Your task to perform on an android device: toggle javascript in the chrome app Image 0: 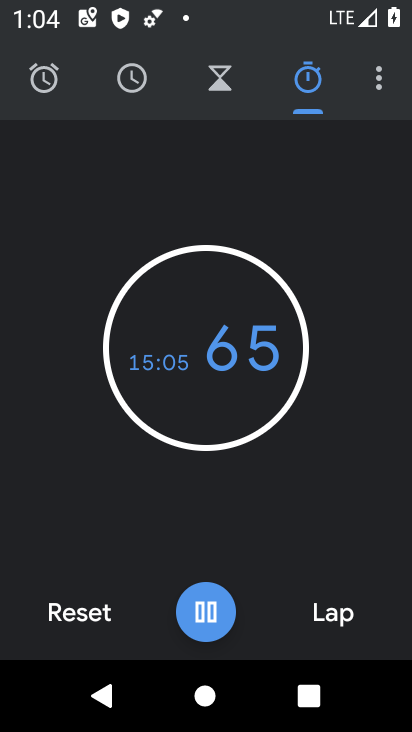
Step 0: press home button
Your task to perform on an android device: toggle javascript in the chrome app Image 1: 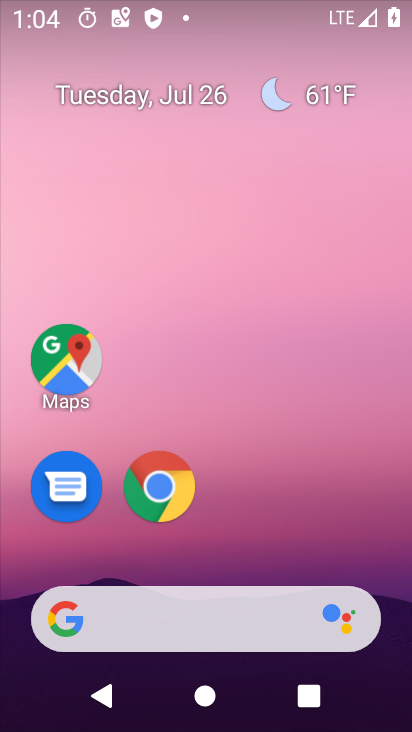
Step 1: drag from (334, 537) to (342, 37)
Your task to perform on an android device: toggle javascript in the chrome app Image 2: 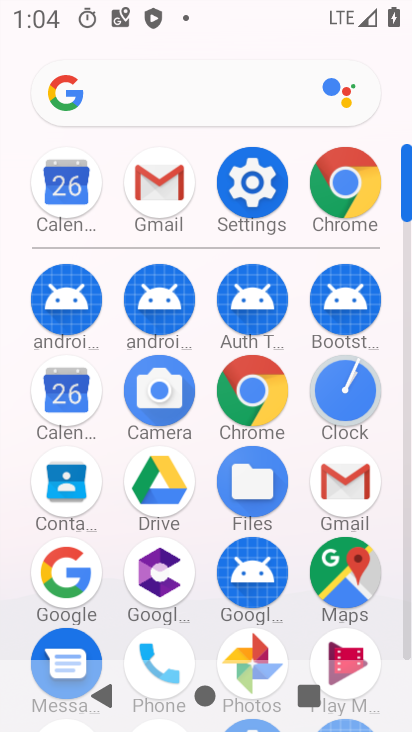
Step 2: click (353, 199)
Your task to perform on an android device: toggle javascript in the chrome app Image 3: 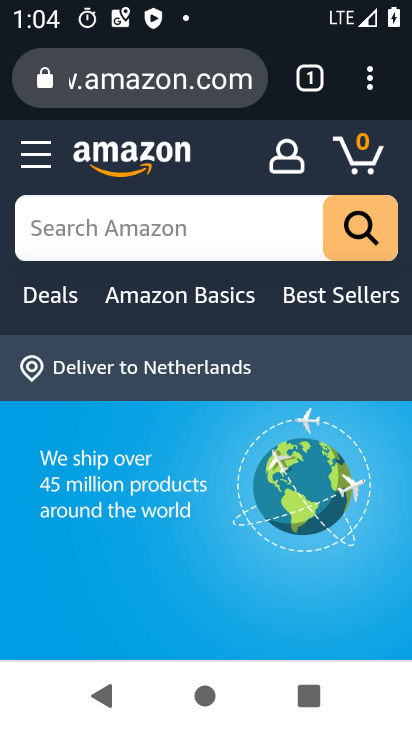
Step 3: click (370, 91)
Your task to perform on an android device: toggle javascript in the chrome app Image 4: 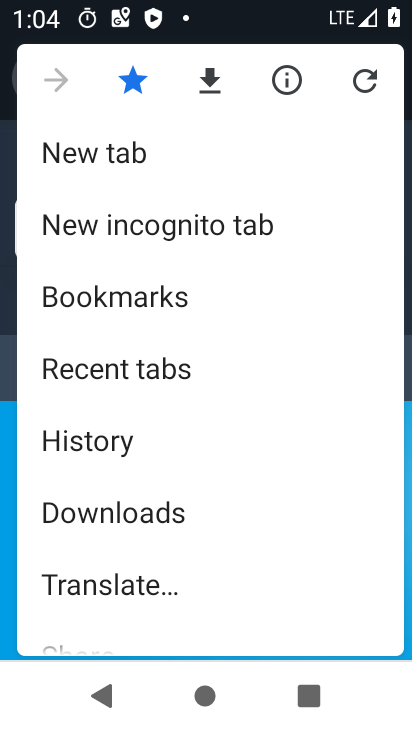
Step 4: drag from (289, 487) to (289, 327)
Your task to perform on an android device: toggle javascript in the chrome app Image 5: 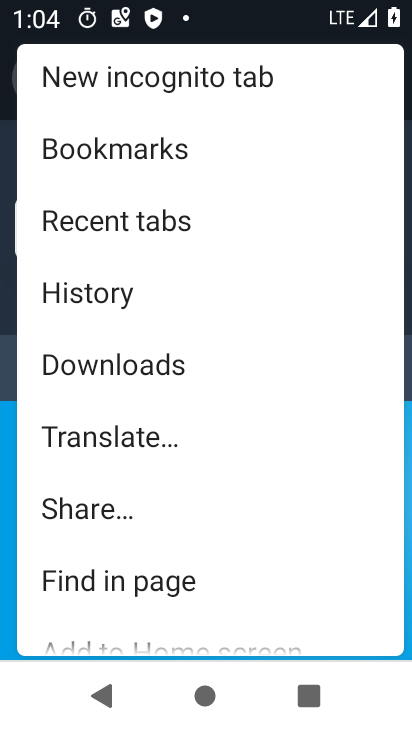
Step 5: drag from (274, 495) to (274, 394)
Your task to perform on an android device: toggle javascript in the chrome app Image 6: 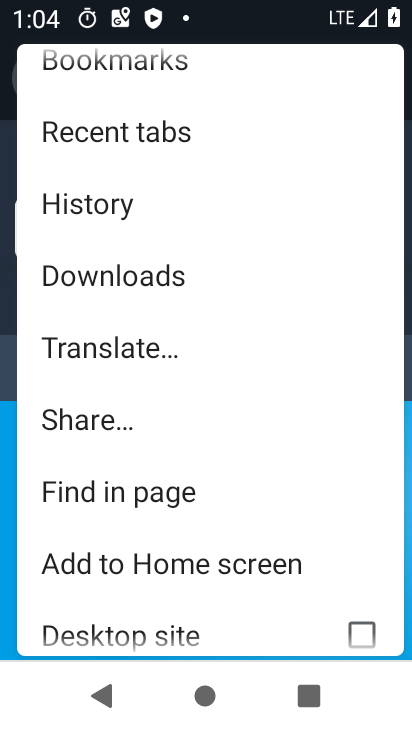
Step 6: drag from (276, 533) to (280, 362)
Your task to perform on an android device: toggle javascript in the chrome app Image 7: 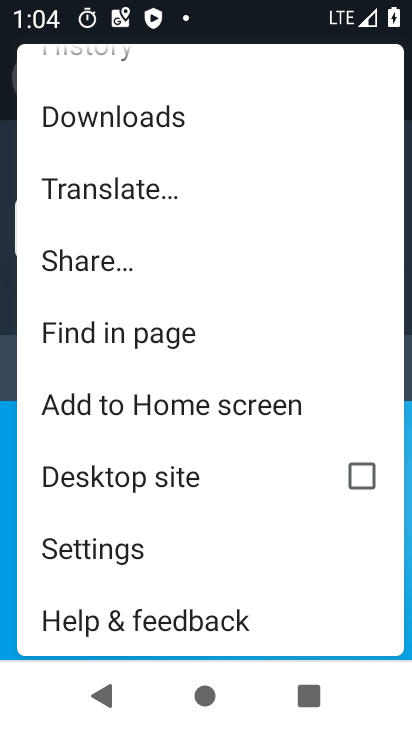
Step 7: drag from (282, 549) to (287, 402)
Your task to perform on an android device: toggle javascript in the chrome app Image 8: 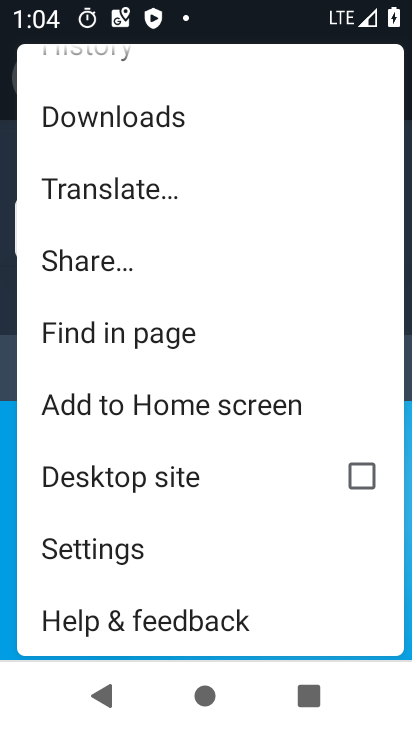
Step 8: click (154, 565)
Your task to perform on an android device: toggle javascript in the chrome app Image 9: 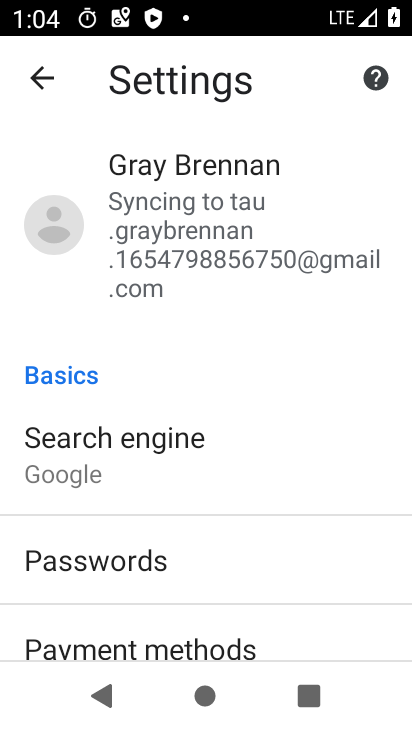
Step 9: drag from (318, 459) to (317, 420)
Your task to perform on an android device: toggle javascript in the chrome app Image 10: 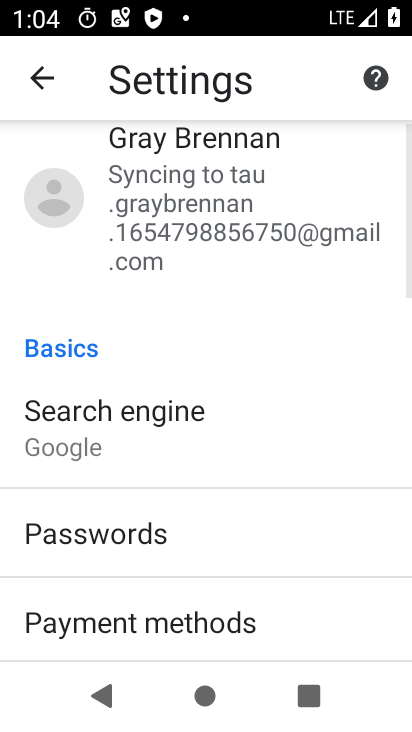
Step 10: drag from (319, 592) to (314, 398)
Your task to perform on an android device: toggle javascript in the chrome app Image 11: 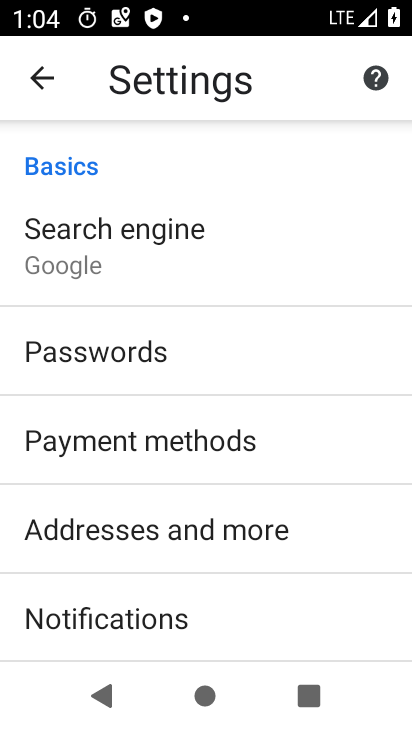
Step 11: drag from (326, 590) to (324, 422)
Your task to perform on an android device: toggle javascript in the chrome app Image 12: 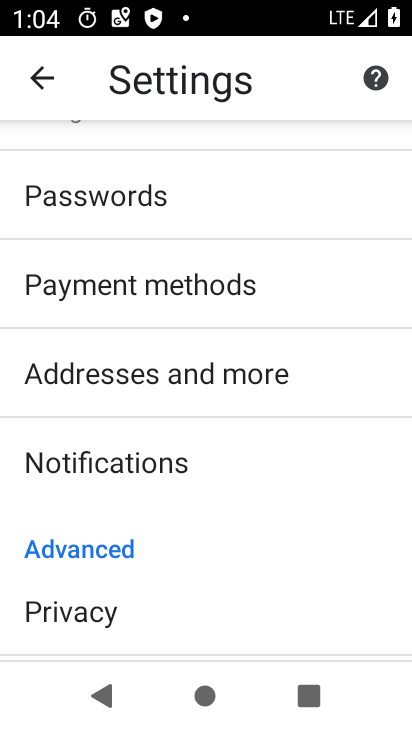
Step 12: drag from (290, 585) to (300, 416)
Your task to perform on an android device: toggle javascript in the chrome app Image 13: 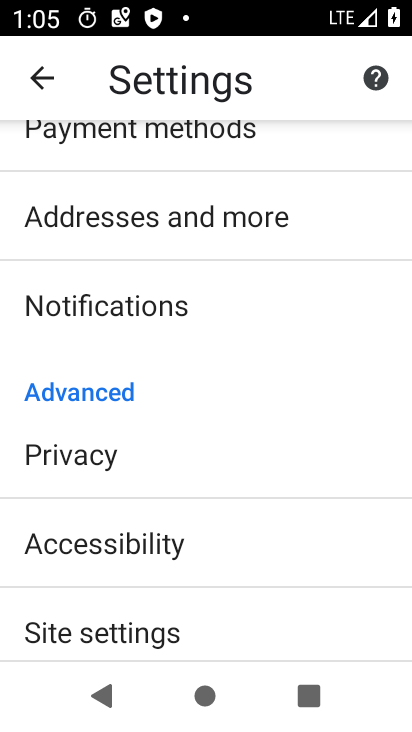
Step 13: drag from (305, 588) to (309, 411)
Your task to perform on an android device: toggle javascript in the chrome app Image 14: 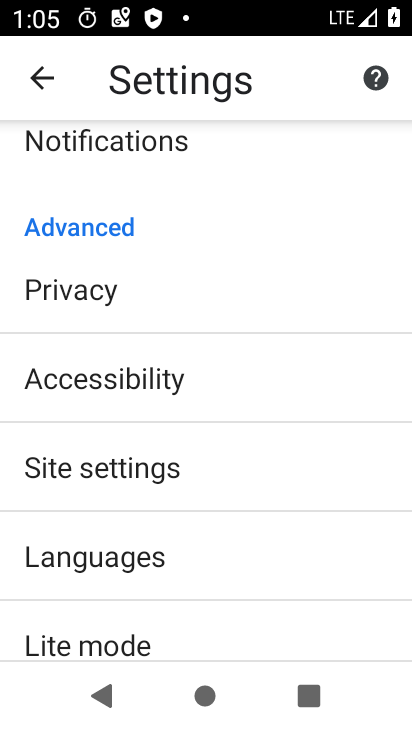
Step 14: drag from (307, 566) to (307, 332)
Your task to perform on an android device: toggle javascript in the chrome app Image 15: 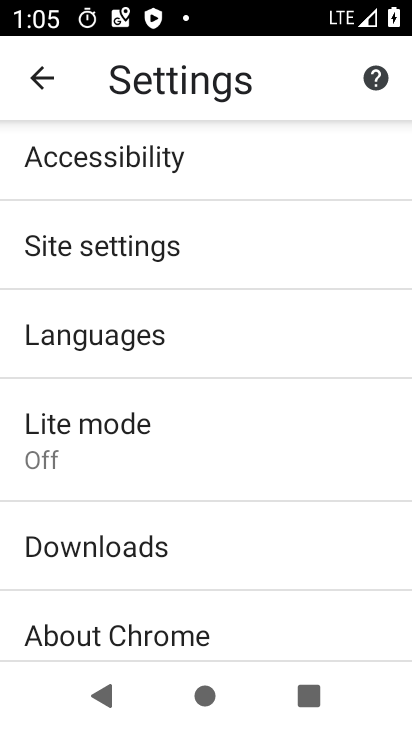
Step 15: drag from (282, 534) to (280, 383)
Your task to perform on an android device: toggle javascript in the chrome app Image 16: 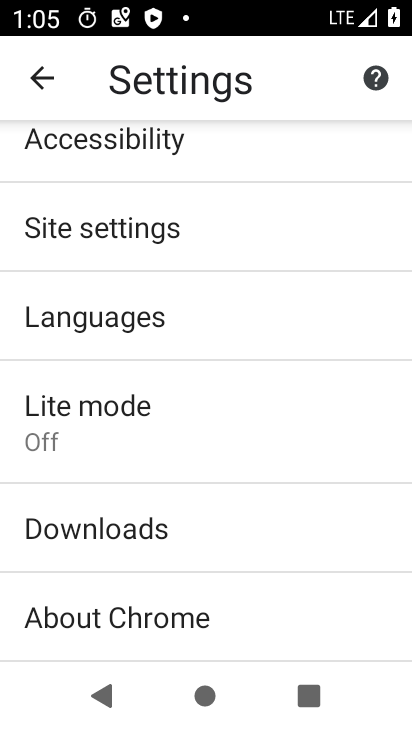
Step 16: drag from (282, 259) to (287, 412)
Your task to perform on an android device: toggle javascript in the chrome app Image 17: 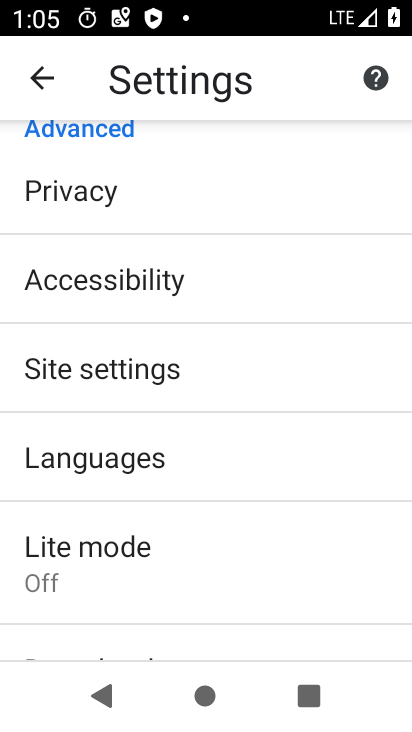
Step 17: drag from (281, 256) to (296, 390)
Your task to perform on an android device: toggle javascript in the chrome app Image 18: 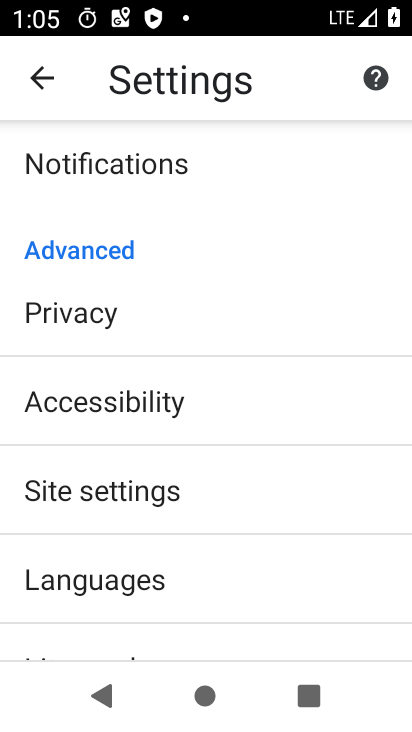
Step 18: click (241, 500)
Your task to perform on an android device: toggle javascript in the chrome app Image 19: 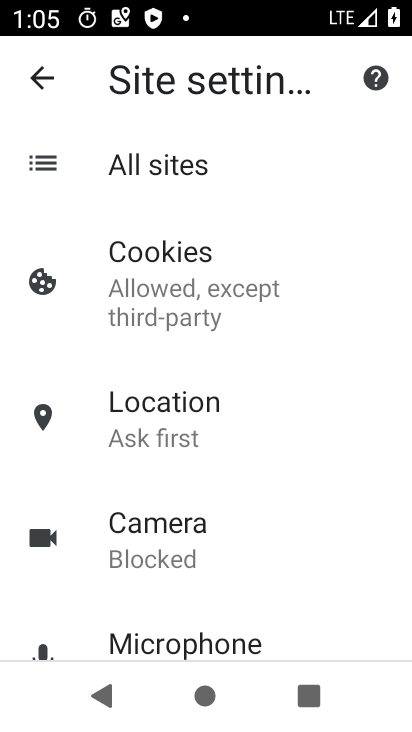
Step 19: drag from (317, 507) to (325, 368)
Your task to perform on an android device: toggle javascript in the chrome app Image 20: 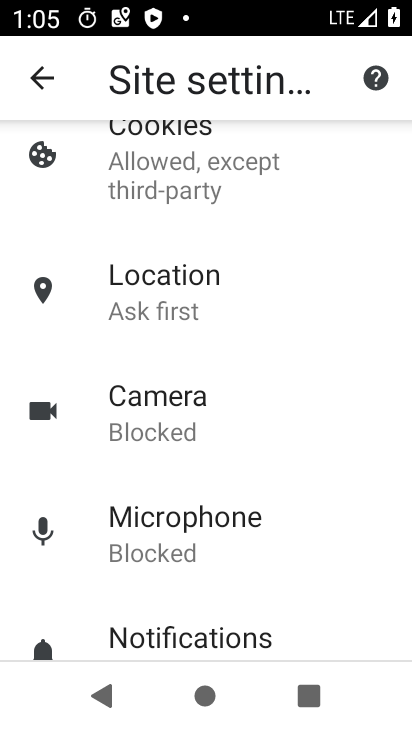
Step 20: drag from (324, 545) to (326, 396)
Your task to perform on an android device: toggle javascript in the chrome app Image 21: 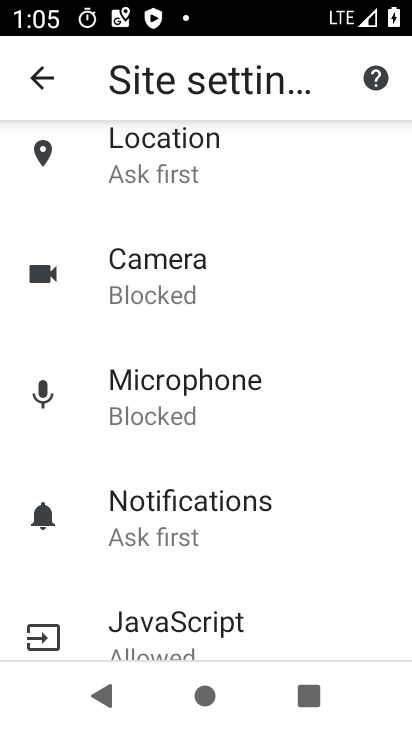
Step 21: drag from (340, 586) to (340, 420)
Your task to perform on an android device: toggle javascript in the chrome app Image 22: 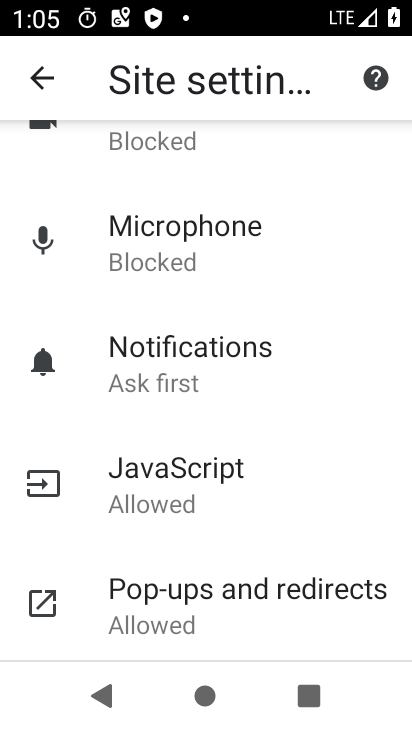
Step 22: drag from (316, 555) to (316, 409)
Your task to perform on an android device: toggle javascript in the chrome app Image 23: 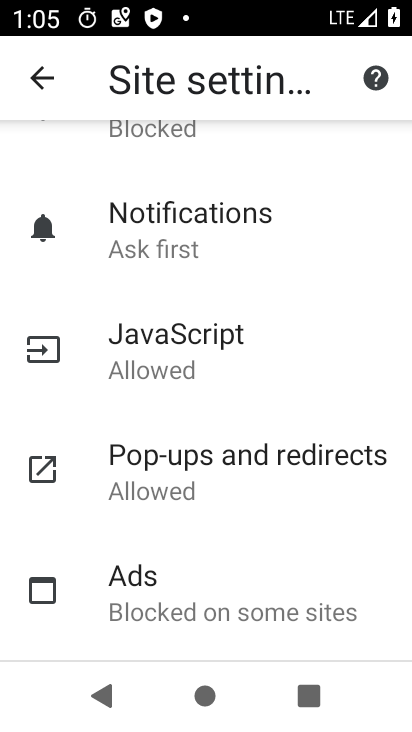
Step 23: drag from (318, 555) to (336, 279)
Your task to perform on an android device: toggle javascript in the chrome app Image 24: 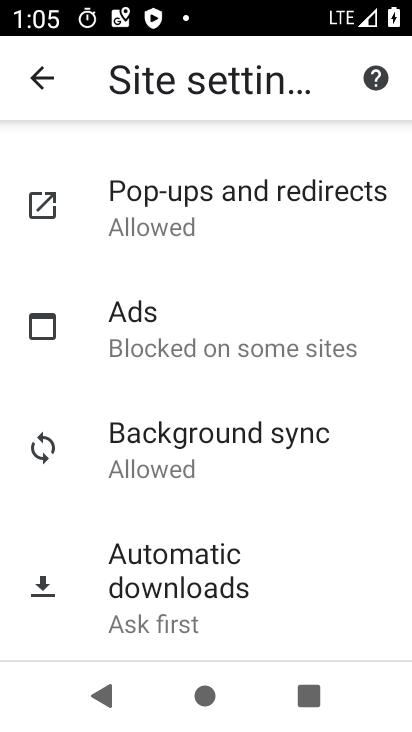
Step 24: drag from (317, 546) to (325, 372)
Your task to perform on an android device: toggle javascript in the chrome app Image 25: 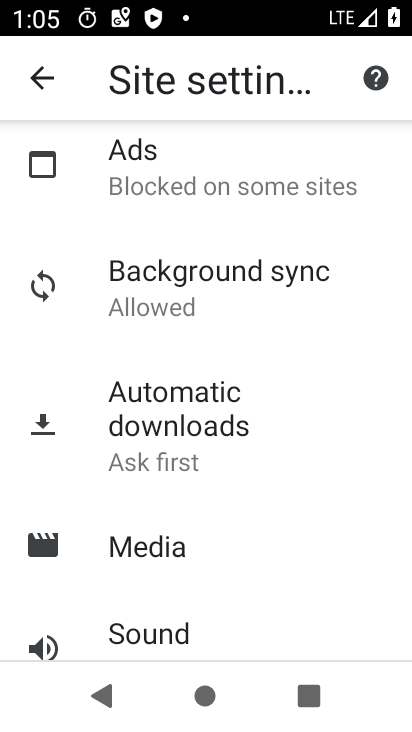
Step 25: drag from (329, 532) to (329, 368)
Your task to perform on an android device: toggle javascript in the chrome app Image 26: 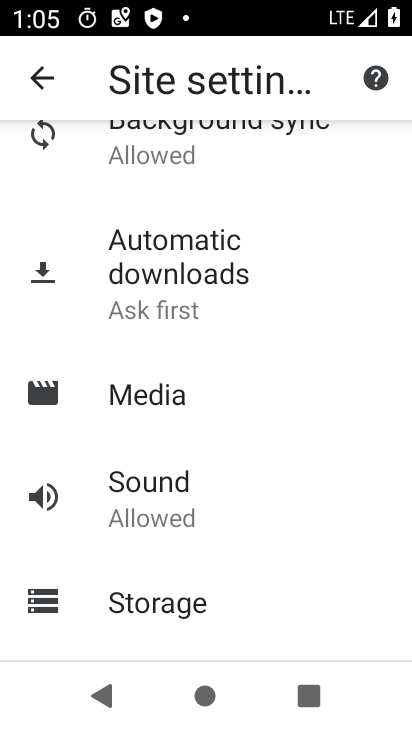
Step 26: drag from (312, 561) to (312, 364)
Your task to perform on an android device: toggle javascript in the chrome app Image 27: 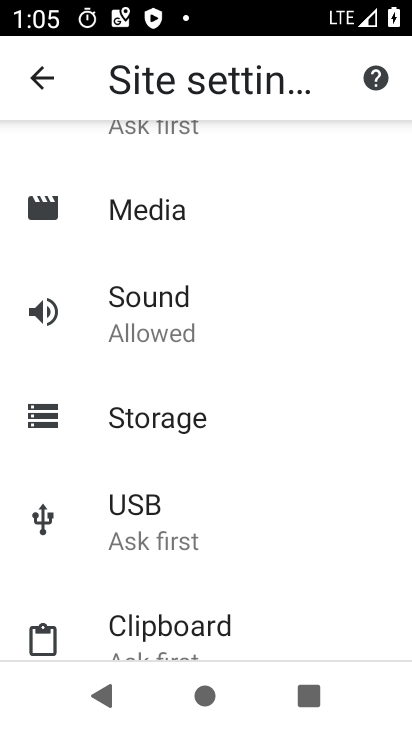
Step 27: drag from (313, 583) to (318, 415)
Your task to perform on an android device: toggle javascript in the chrome app Image 28: 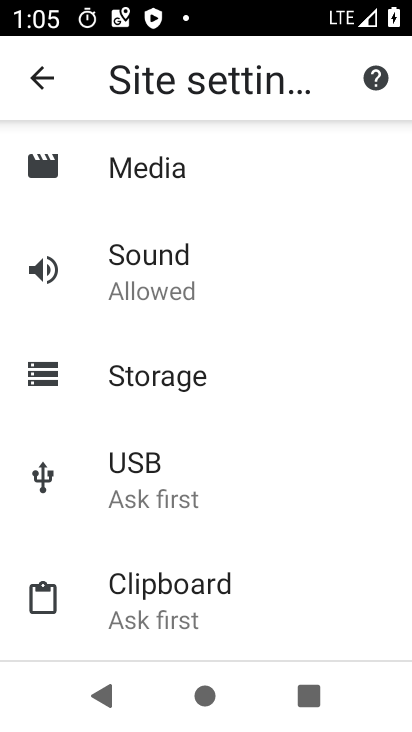
Step 28: drag from (324, 290) to (326, 408)
Your task to perform on an android device: toggle javascript in the chrome app Image 29: 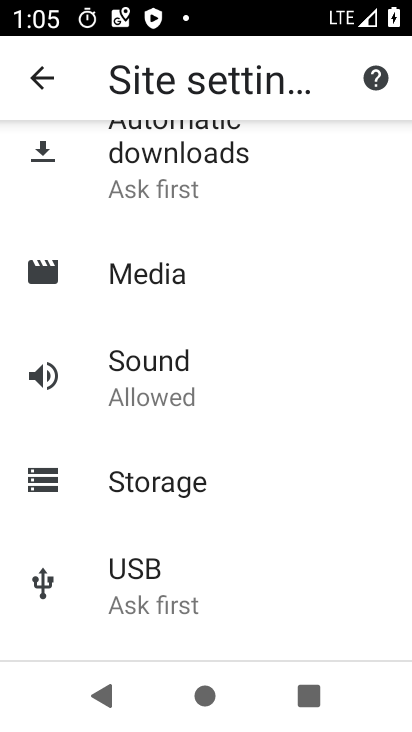
Step 29: drag from (326, 232) to (351, 396)
Your task to perform on an android device: toggle javascript in the chrome app Image 30: 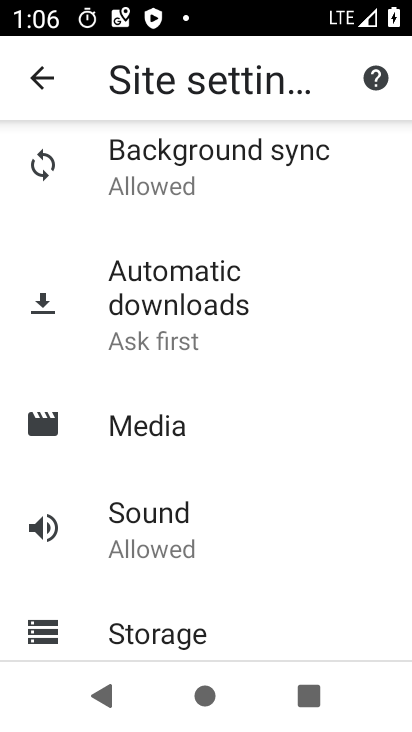
Step 30: drag from (340, 218) to (348, 414)
Your task to perform on an android device: toggle javascript in the chrome app Image 31: 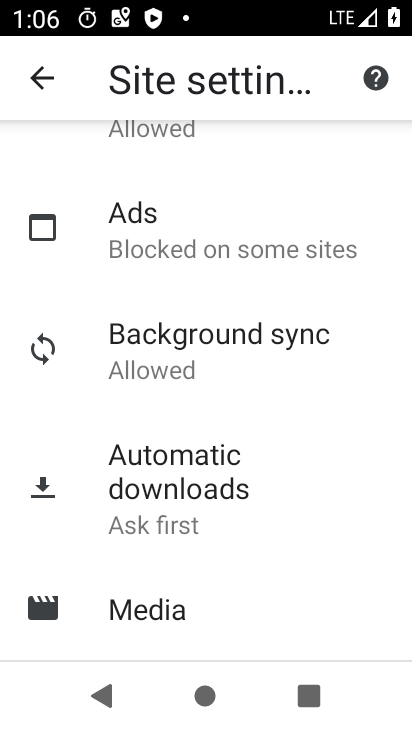
Step 31: drag from (332, 181) to (332, 364)
Your task to perform on an android device: toggle javascript in the chrome app Image 32: 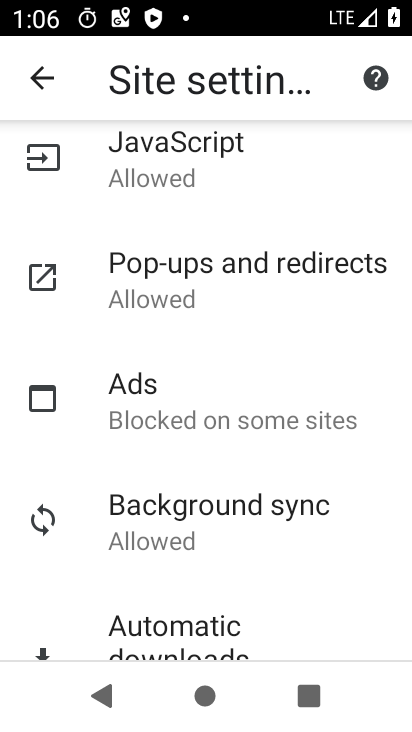
Step 32: drag from (296, 175) to (298, 312)
Your task to perform on an android device: toggle javascript in the chrome app Image 33: 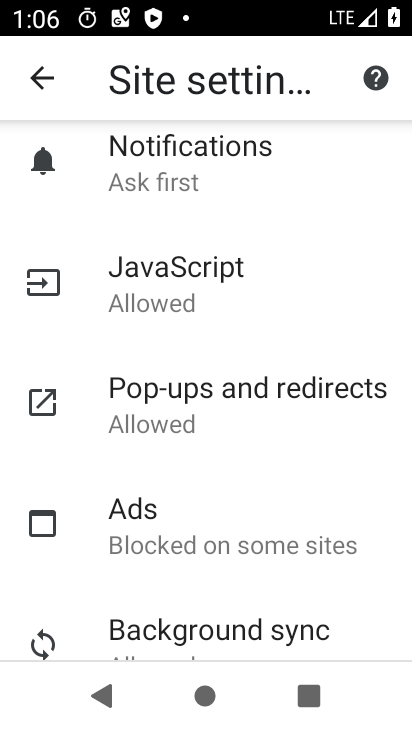
Step 33: click (233, 295)
Your task to perform on an android device: toggle javascript in the chrome app Image 34: 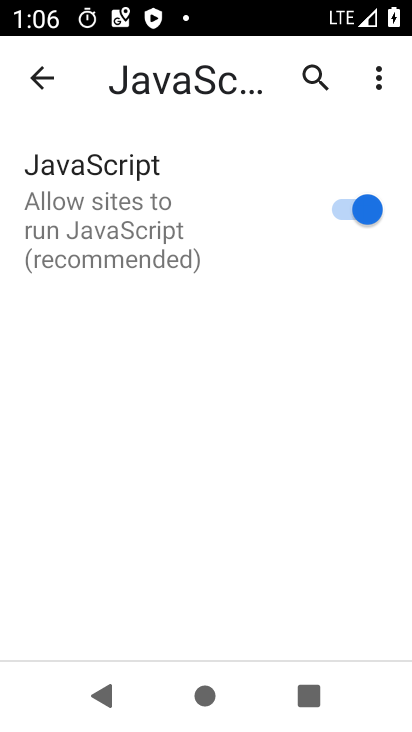
Step 34: click (361, 214)
Your task to perform on an android device: toggle javascript in the chrome app Image 35: 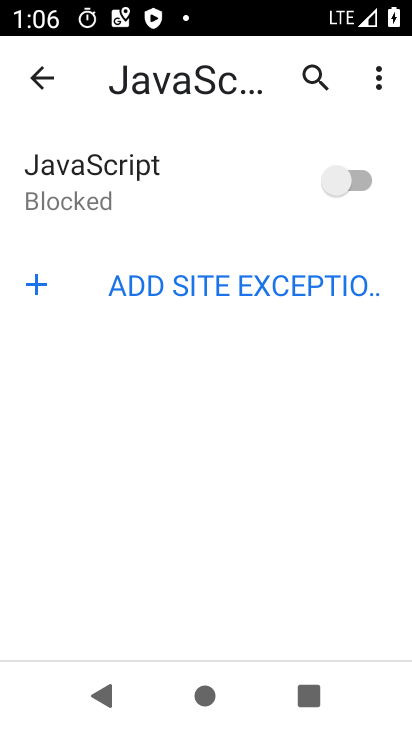
Step 35: task complete